Your task to perform on an android device: Open settings Image 0: 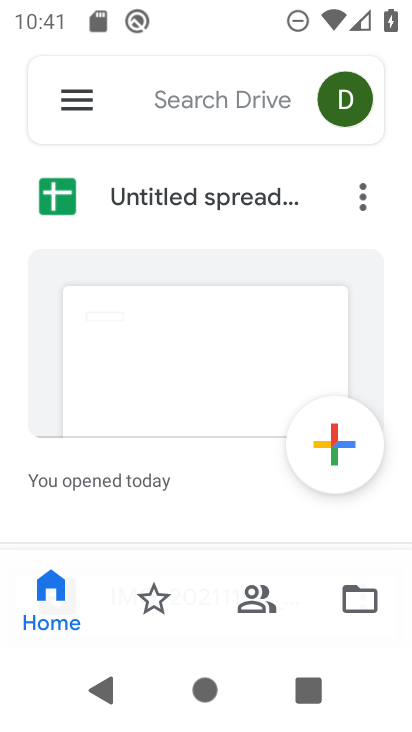
Step 0: press home button
Your task to perform on an android device: Open settings Image 1: 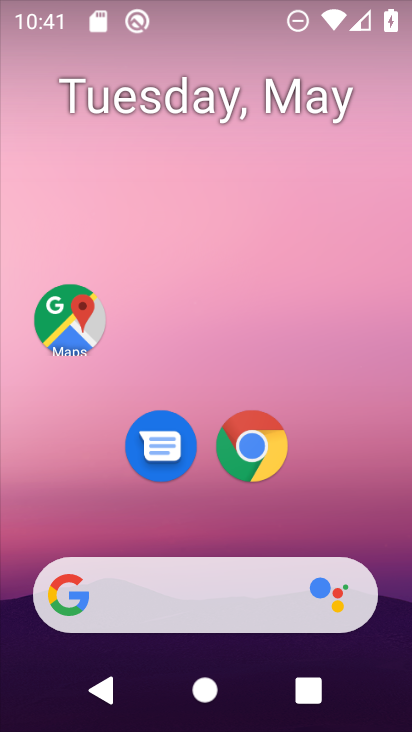
Step 1: drag from (241, 551) to (383, 4)
Your task to perform on an android device: Open settings Image 2: 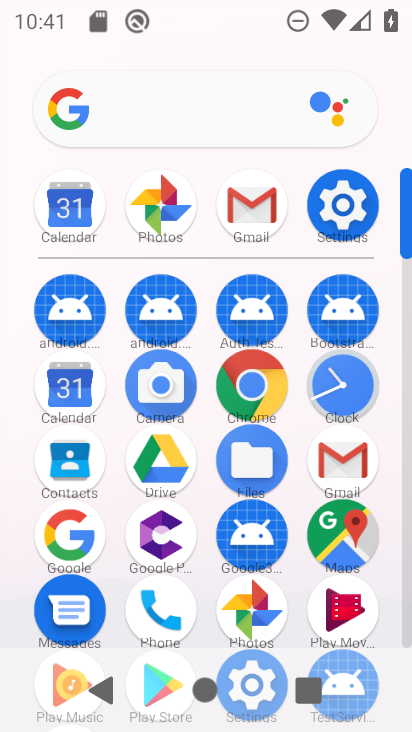
Step 2: click (339, 210)
Your task to perform on an android device: Open settings Image 3: 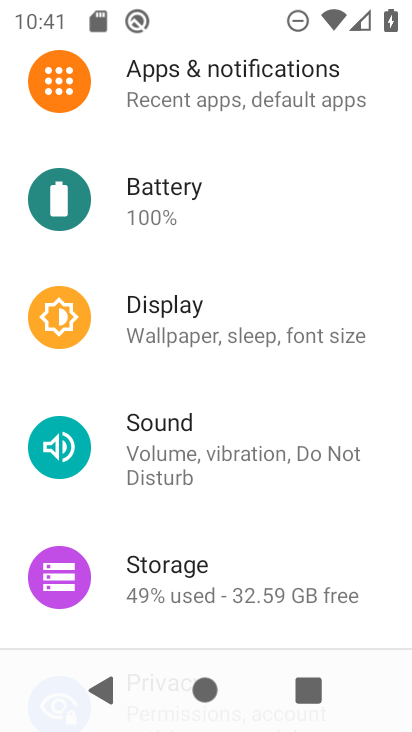
Step 3: task complete